Your task to perform on an android device: Open Wikipedia Image 0: 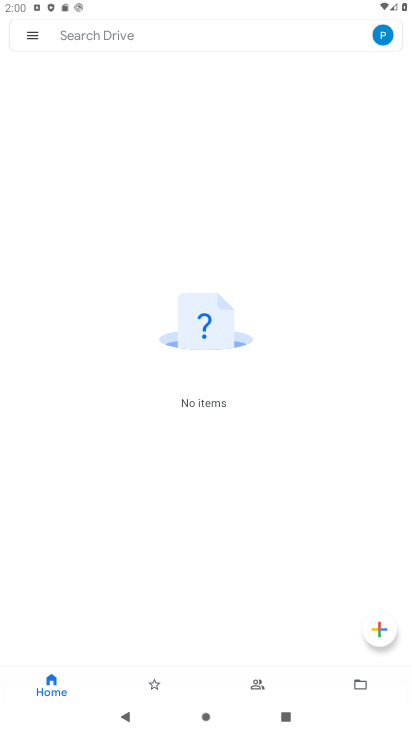
Step 0: press home button
Your task to perform on an android device: Open Wikipedia Image 1: 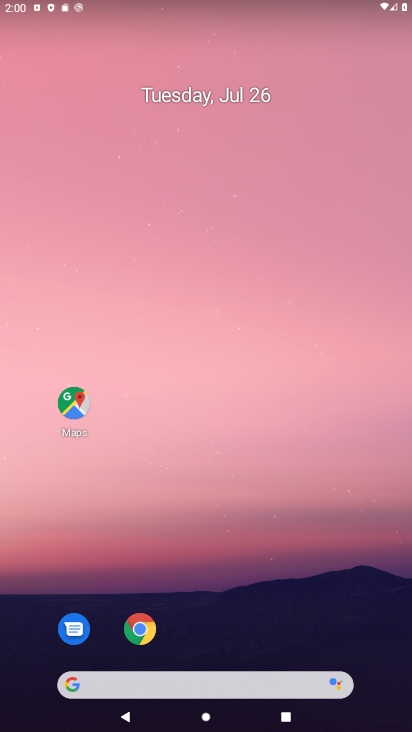
Step 1: click (139, 624)
Your task to perform on an android device: Open Wikipedia Image 2: 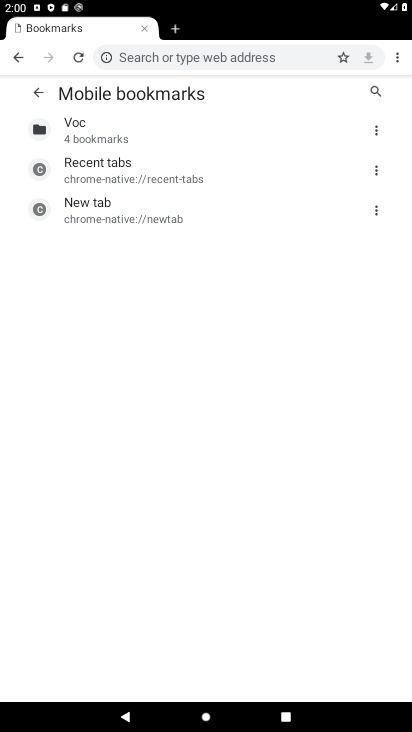
Step 2: click (172, 58)
Your task to perform on an android device: Open Wikipedia Image 3: 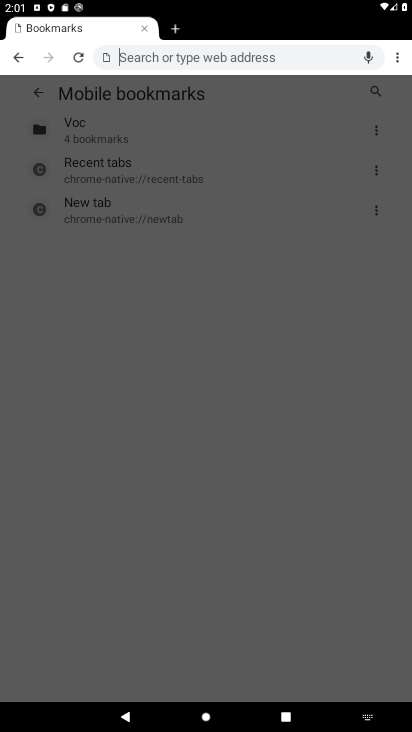
Step 3: type "wikipedia"
Your task to perform on an android device: Open Wikipedia Image 4: 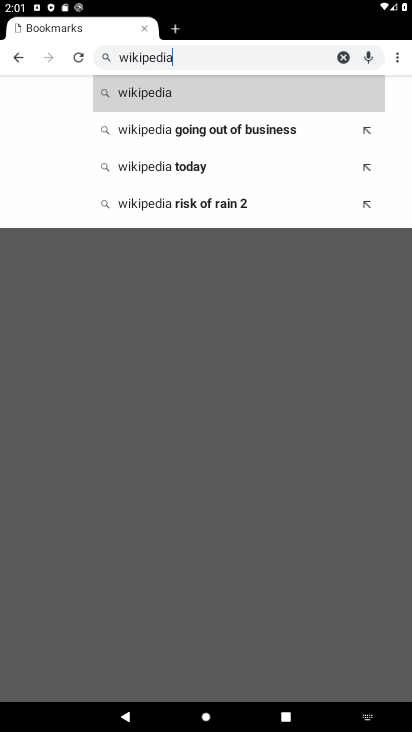
Step 4: click (139, 96)
Your task to perform on an android device: Open Wikipedia Image 5: 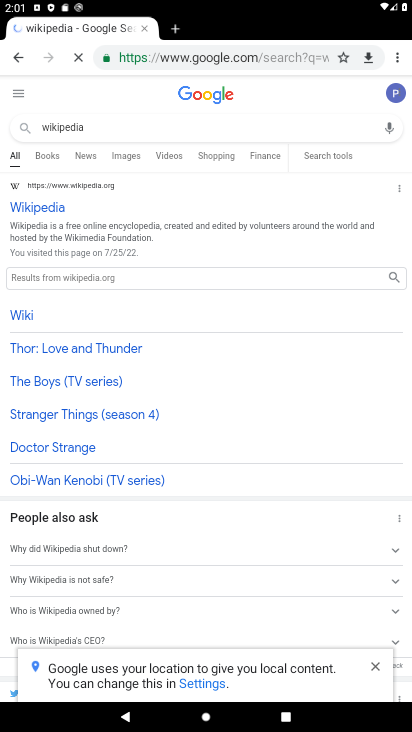
Step 5: click (39, 214)
Your task to perform on an android device: Open Wikipedia Image 6: 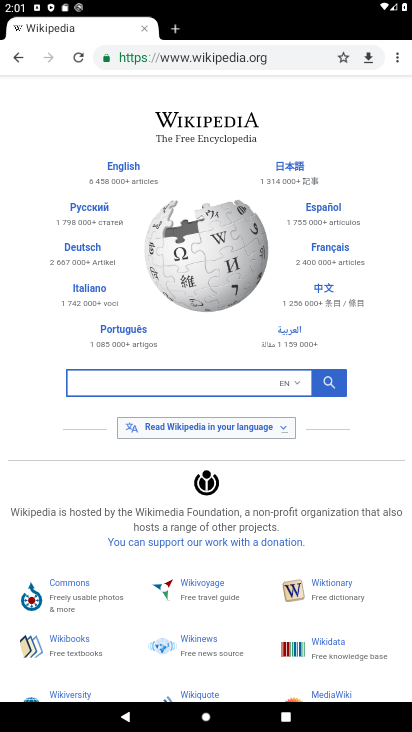
Step 6: task complete